Your task to perform on an android device: Turn on the flashlight Image 0: 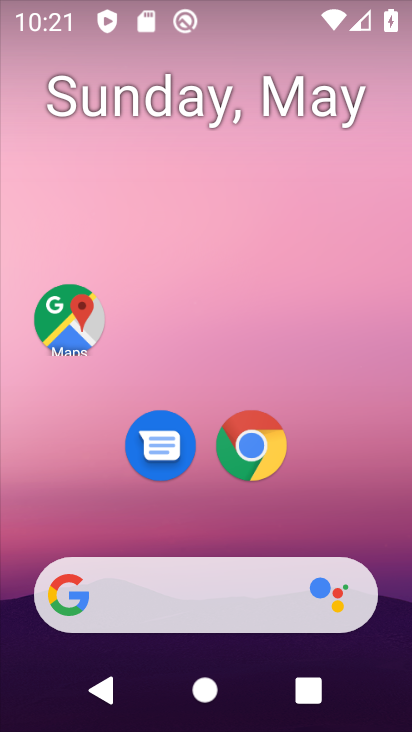
Step 0: drag from (284, 14) to (264, 472)
Your task to perform on an android device: Turn on the flashlight Image 1: 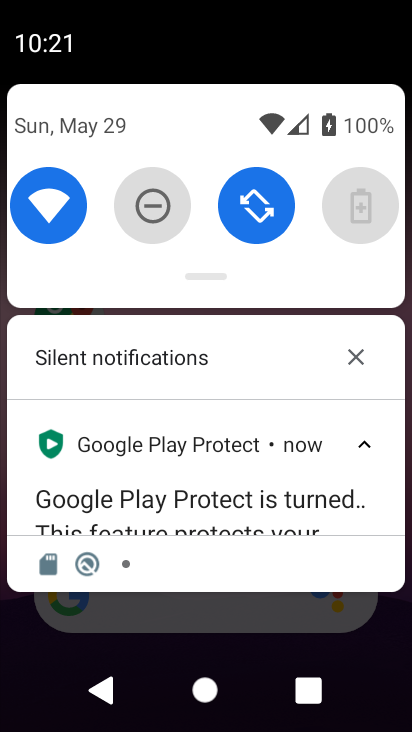
Step 1: drag from (209, 237) to (235, 730)
Your task to perform on an android device: Turn on the flashlight Image 2: 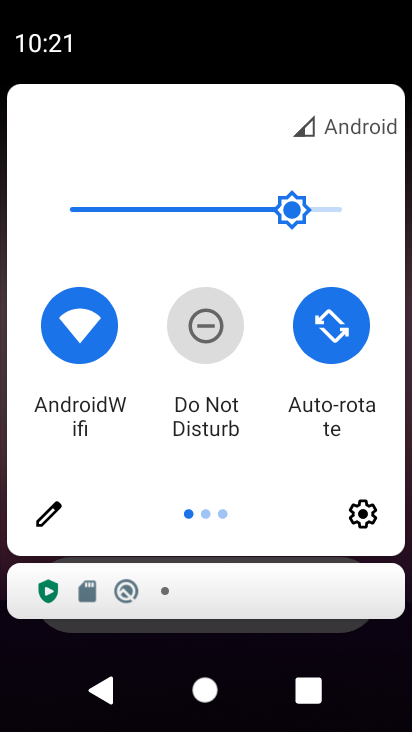
Step 2: click (60, 499)
Your task to perform on an android device: Turn on the flashlight Image 3: 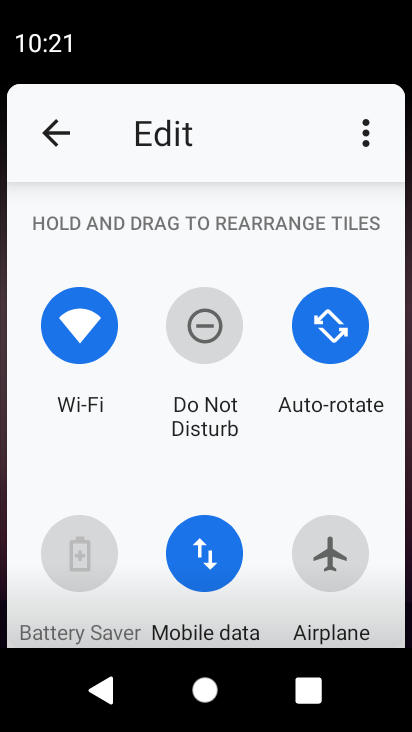
Step 3: task complete